Your task to perform on an android device: turn vacation reply on in the gmail app Image 0: 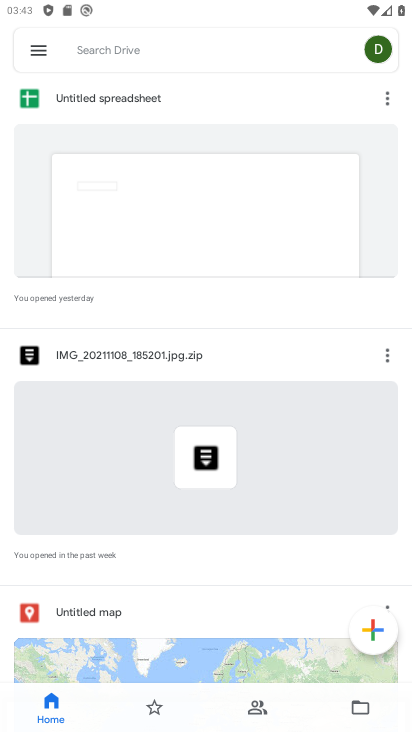
Step 0: press home button
Your task to perform on an android device: turn vacation reply on in the gmail app Image 1: 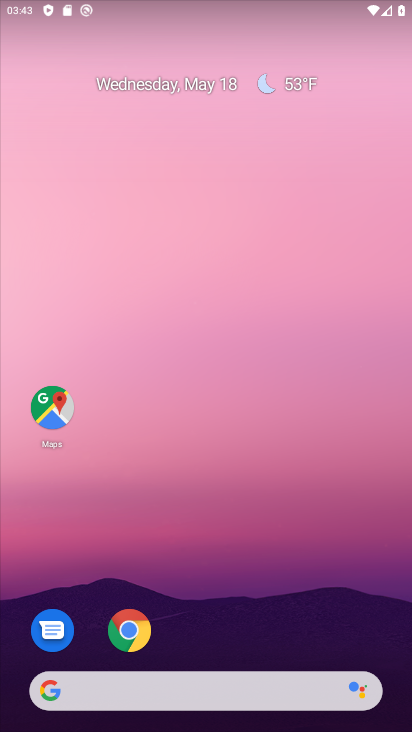
Step 1: drag from (180, 720) to (180, 190)
Your task to perform on an android device: turn vacation reply on in the gmail app Image 2: 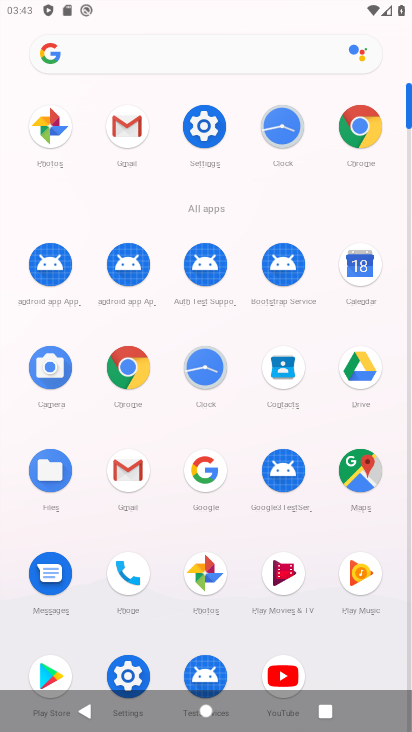
Step 2: click (131, 465)
Your task to perform on an android device: turn vacation reply on in the gmail app Image 3: 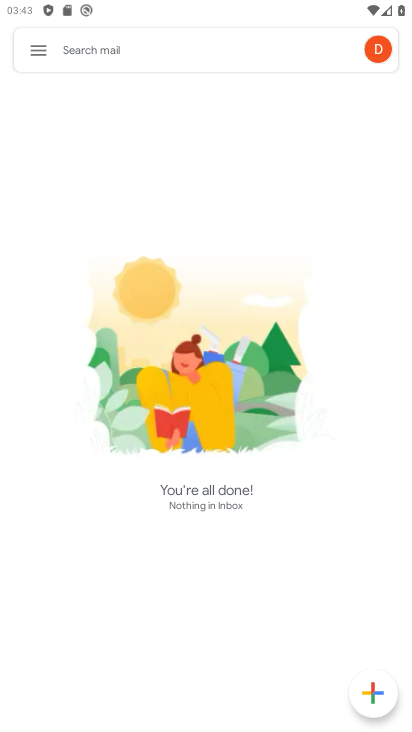
Step 3: click (39, 46)
Your task to perform on an android device: turn vacation reply on in the gmail app Image 4: 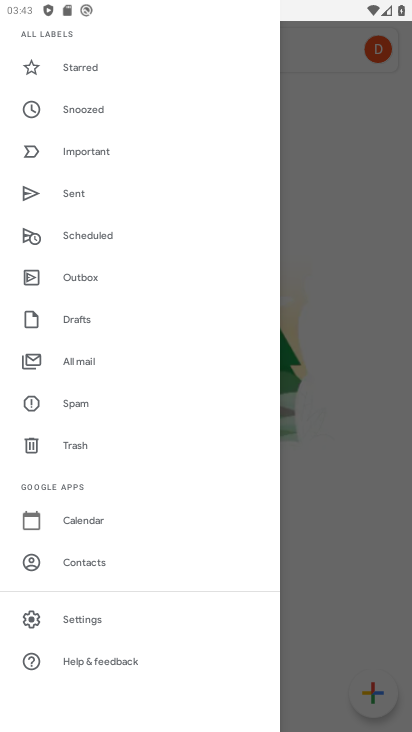
Step 4: click (83, 616)
Your task to perform on an android device: turn vacation reply on in the gmail app Image 5: 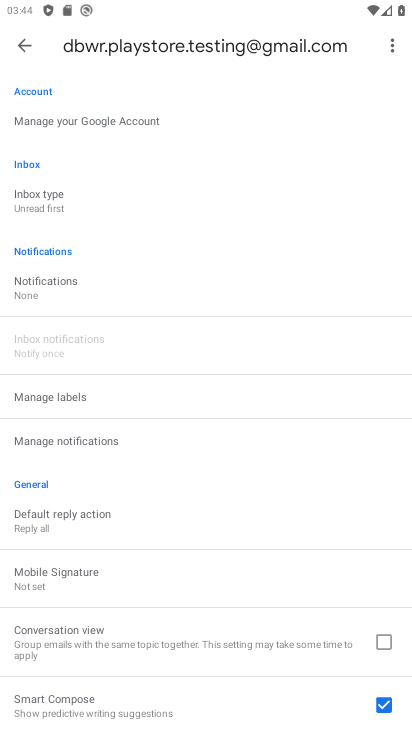
Step 5: drag from (88, 605) to (118, 328)
Your task to perform on an android device: turn vacation reply on in the gmail app Image 6: 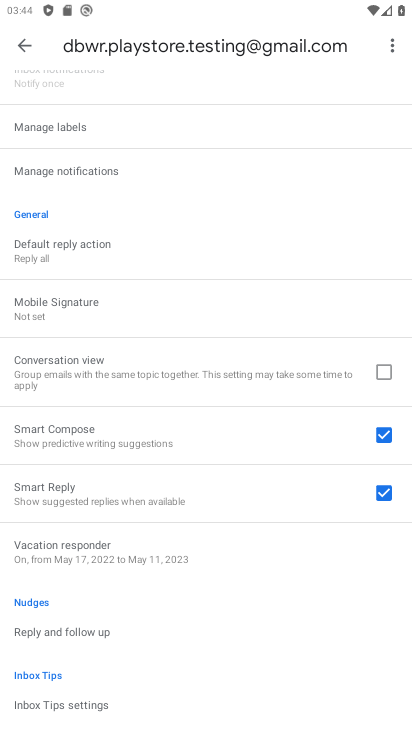
Step 6: click (79, 542)
Your task to perform on an android device: turn vacation reply on in the gmail app Image 7: 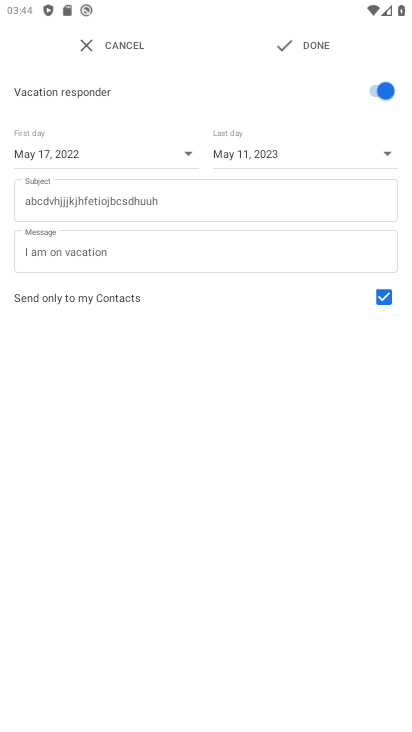
Step 7: task complete